Your task to perform on an android device: Open Reddit.com Image 0: 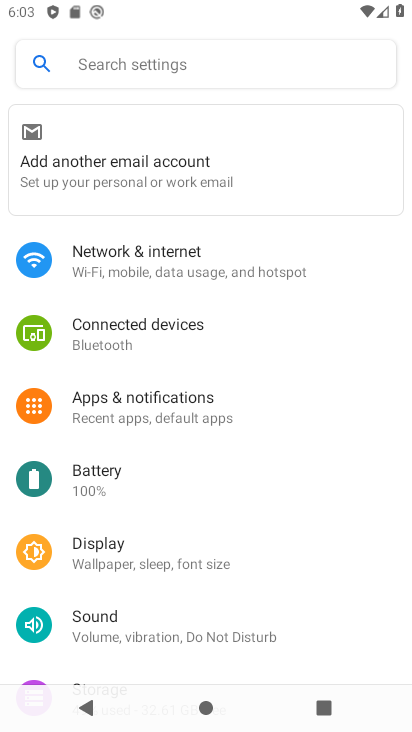
Step 0: press home button
Your task to perform on an android device: Open Reddit.com Image 1: 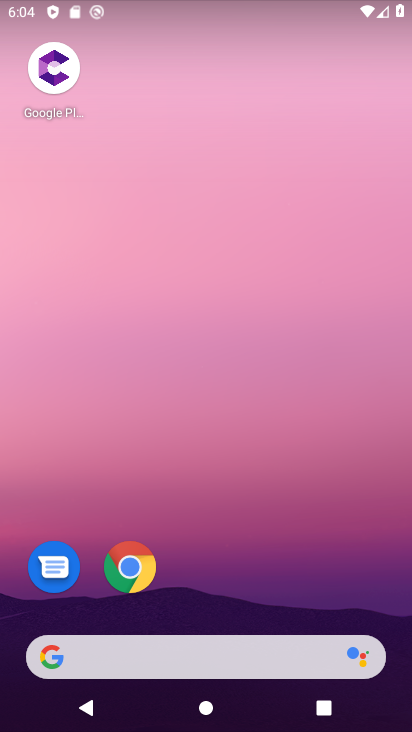
Step 1: drag from (289, 592) to (215, 127)
Your task to perform on an android device: Open Reddit.com Image 2: 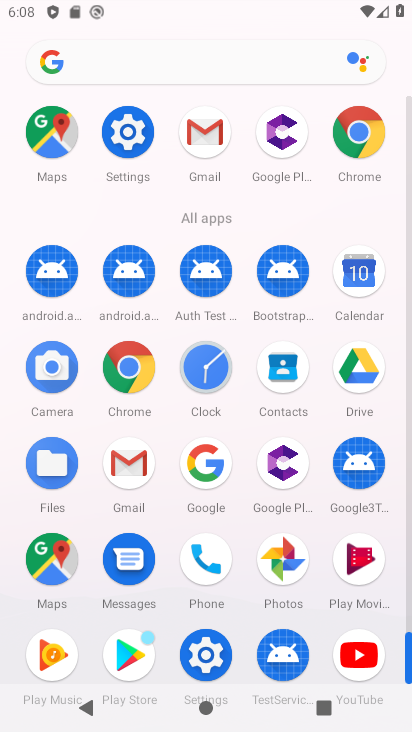
Step 2: drag from (324, 683) to (410, 209)
Your task to perform on an android device: Open Reddit.com Image 3: 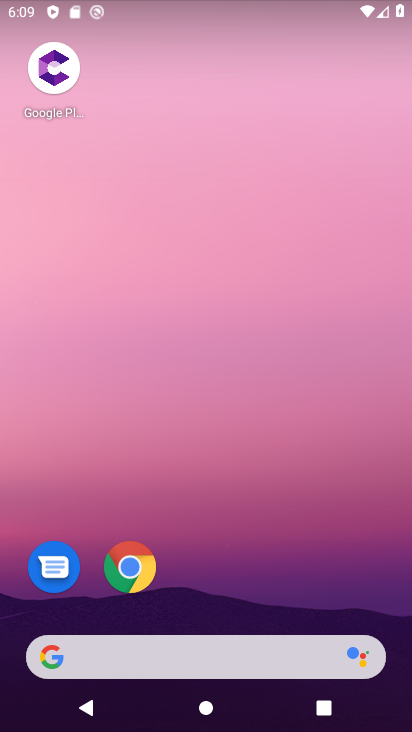
Step 3: click (361, 139)
Your task to perform on an android device: Open Reddit.com Image 4: 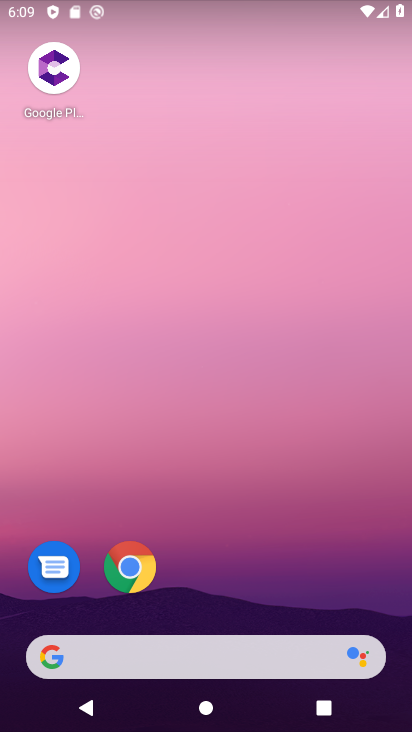
Step 4: click (135, 566)
Your task to perform on an android device: Open Reddit.com Image 5: 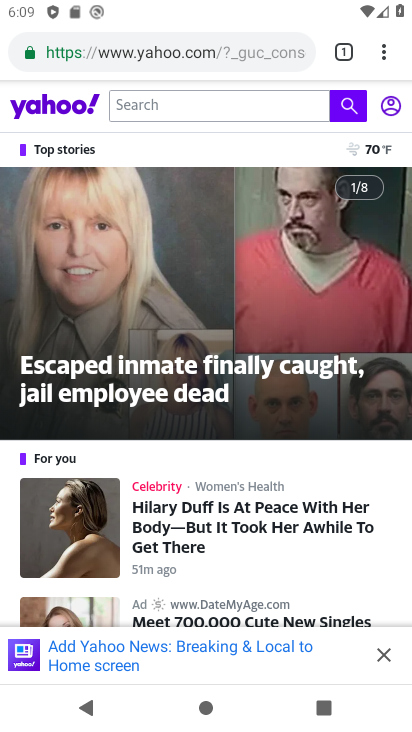
Step 5: click (180, 68)
Your task to perform on an android device: Open Reddit.com Image 6: 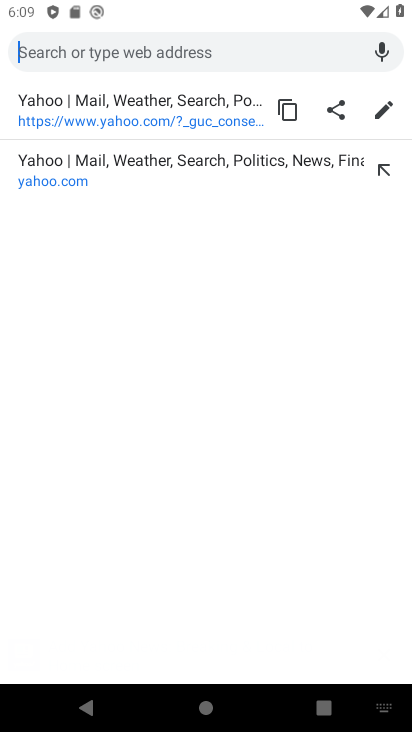
Step 6: type " Reddit.com"
Your task to perform on an android device: Open Reddit.com Image 7: 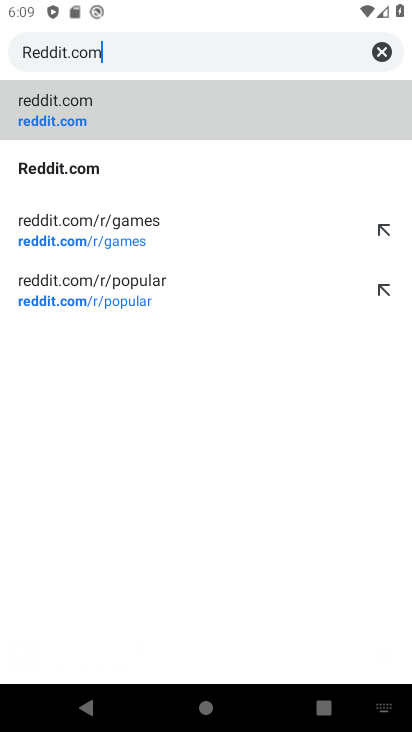
Step 7: click (68, 102)
Your task to perform on an android device: Open Reddit.com Image 8: 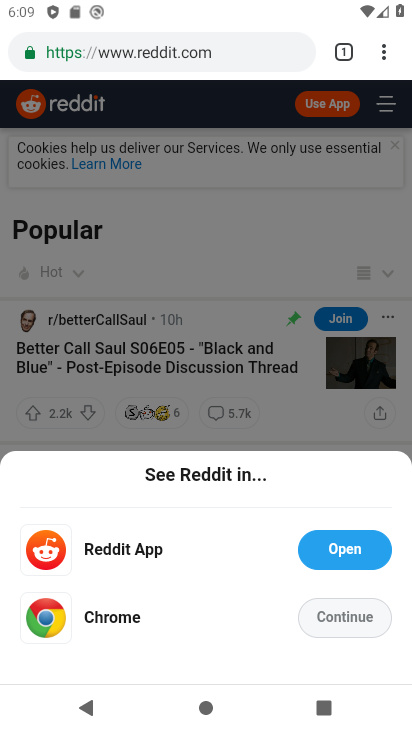
Step 8: task complete